Your task to perform on an android device: open chrome privacy settings Image 0: 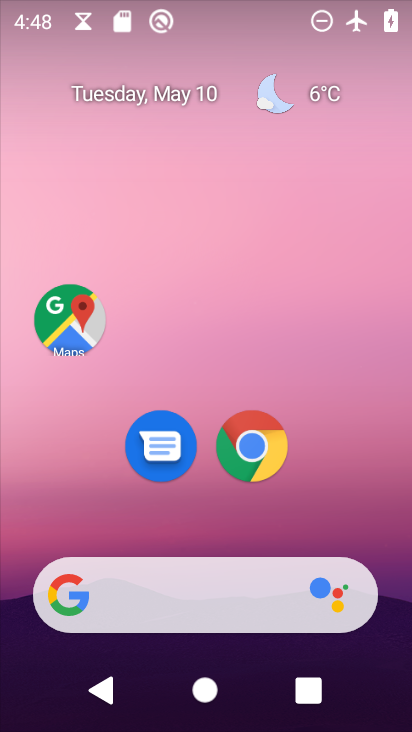
Step 0: click (267, 449)
Your task to perform on an android device: open chrome privacy settings Image 1: 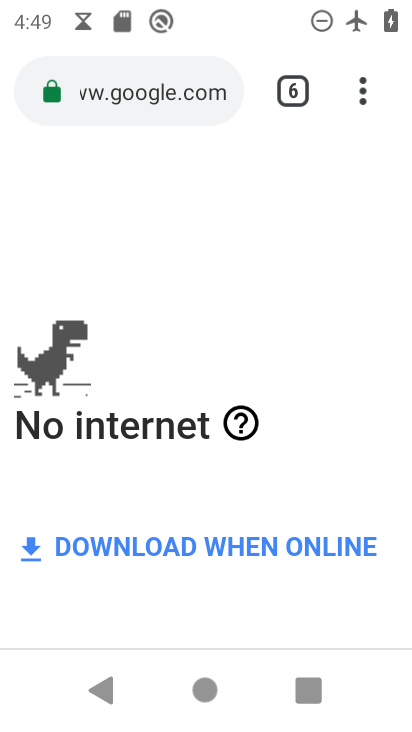
Step 1: click (362, 83)
Your task to perform on an android device: open chrome privacy settings Image 2: 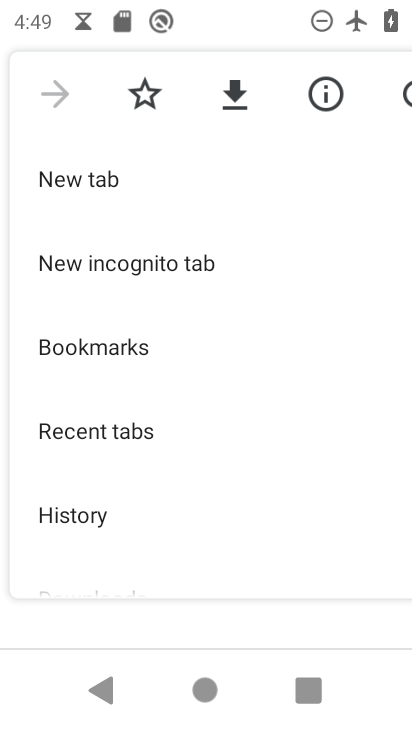
Step 2: drag from (150, 514) to (138, 179)
Your task to perform on an android device: open chrome privacy settings Image 3: 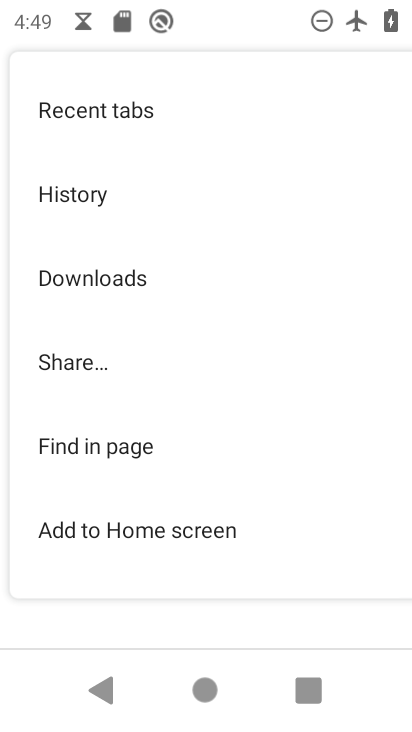
Step 3: drag from (152, 476) to (138, 180)
Your task to perform on an android device: open chrome privacy settings Image 4: 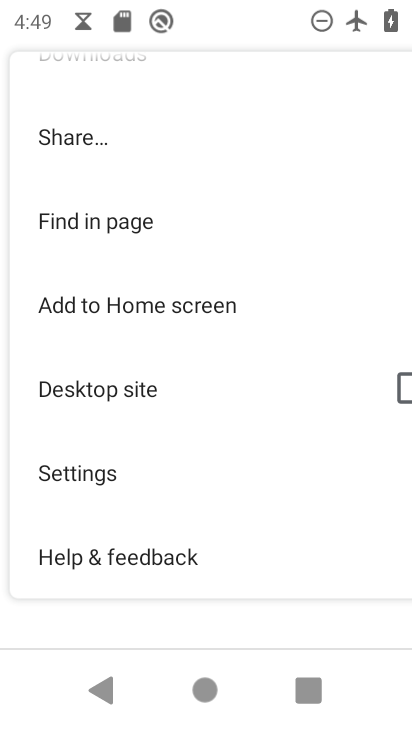
Step 4: click (99, 476)
Your task to perform on an android device: open chrome privacy settings Image 5: 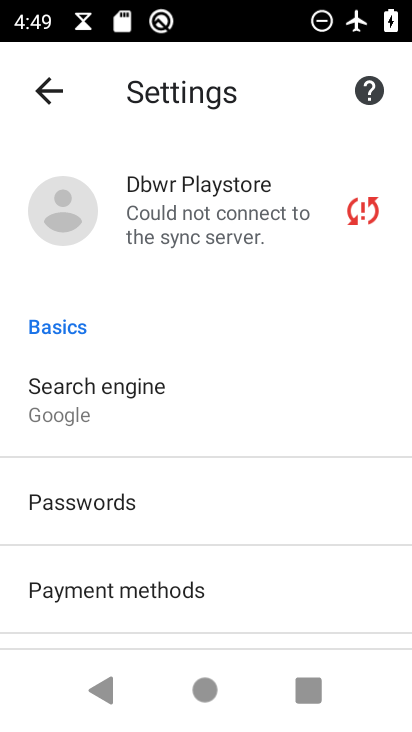
Step 5: task complete